Your task to perform on an android device: Clear the cart on ebay.com. Image 0: 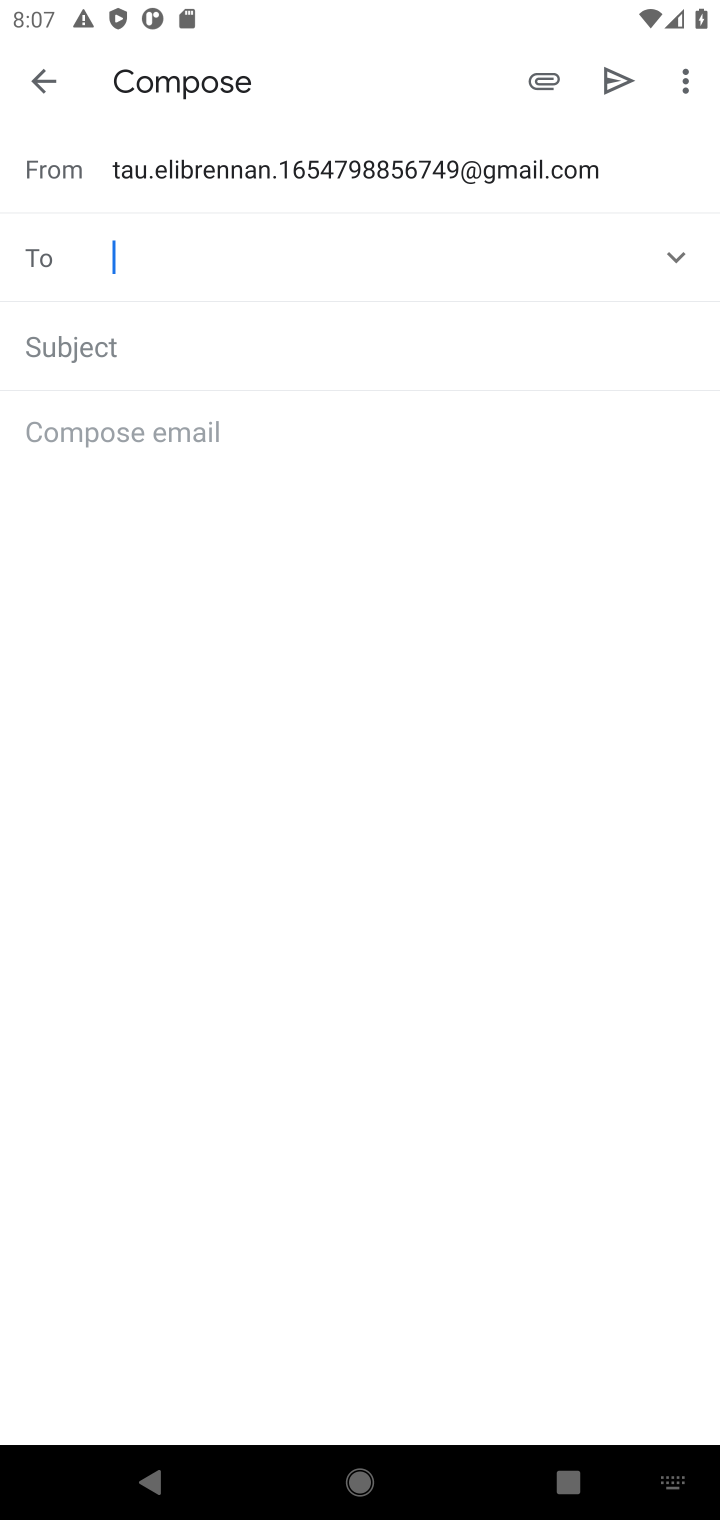
Step 0: press home button
Your task to perform on an android device: Clear the cart on ebay.com. Image 1: 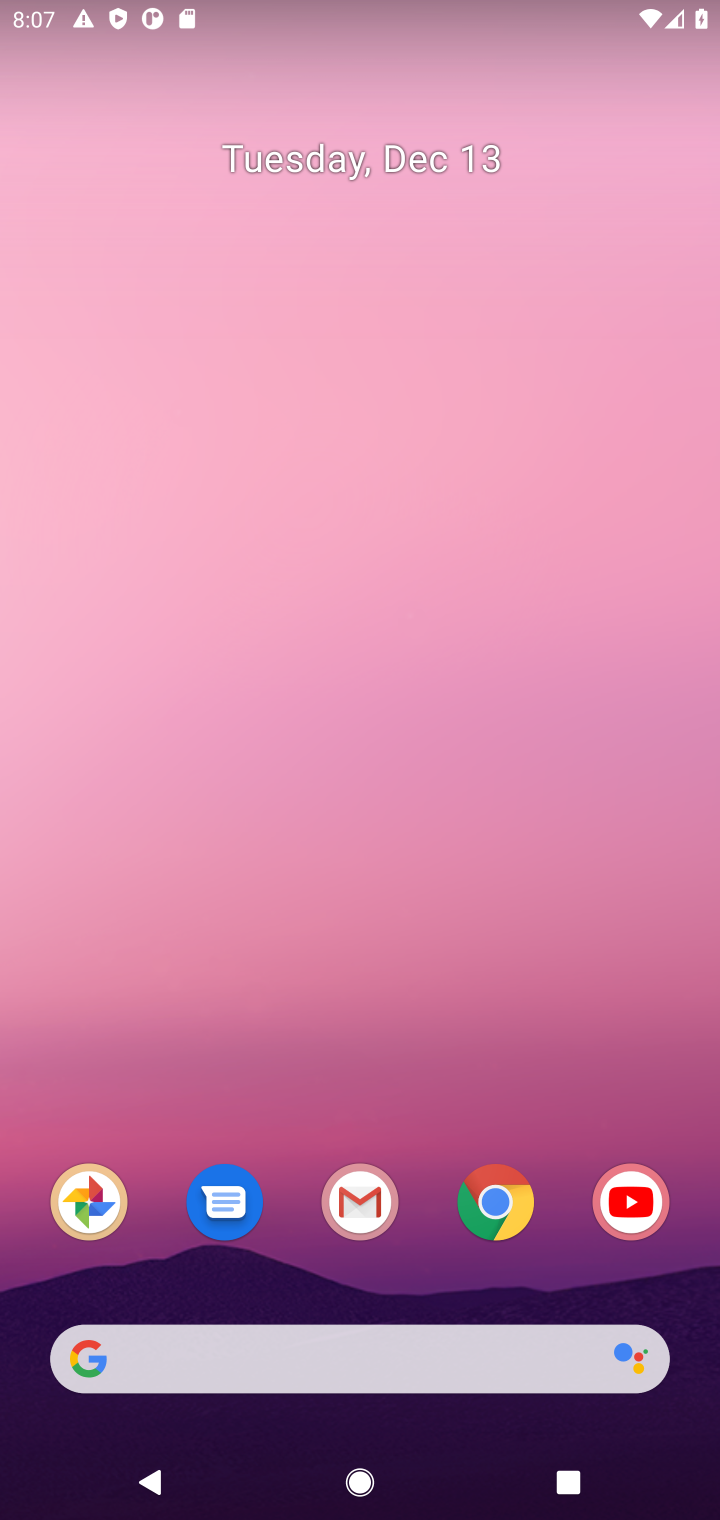
Step 1: click (483, 1219)
Your task to perform on an android device: Clear the cart on ebay.com. Image 2: 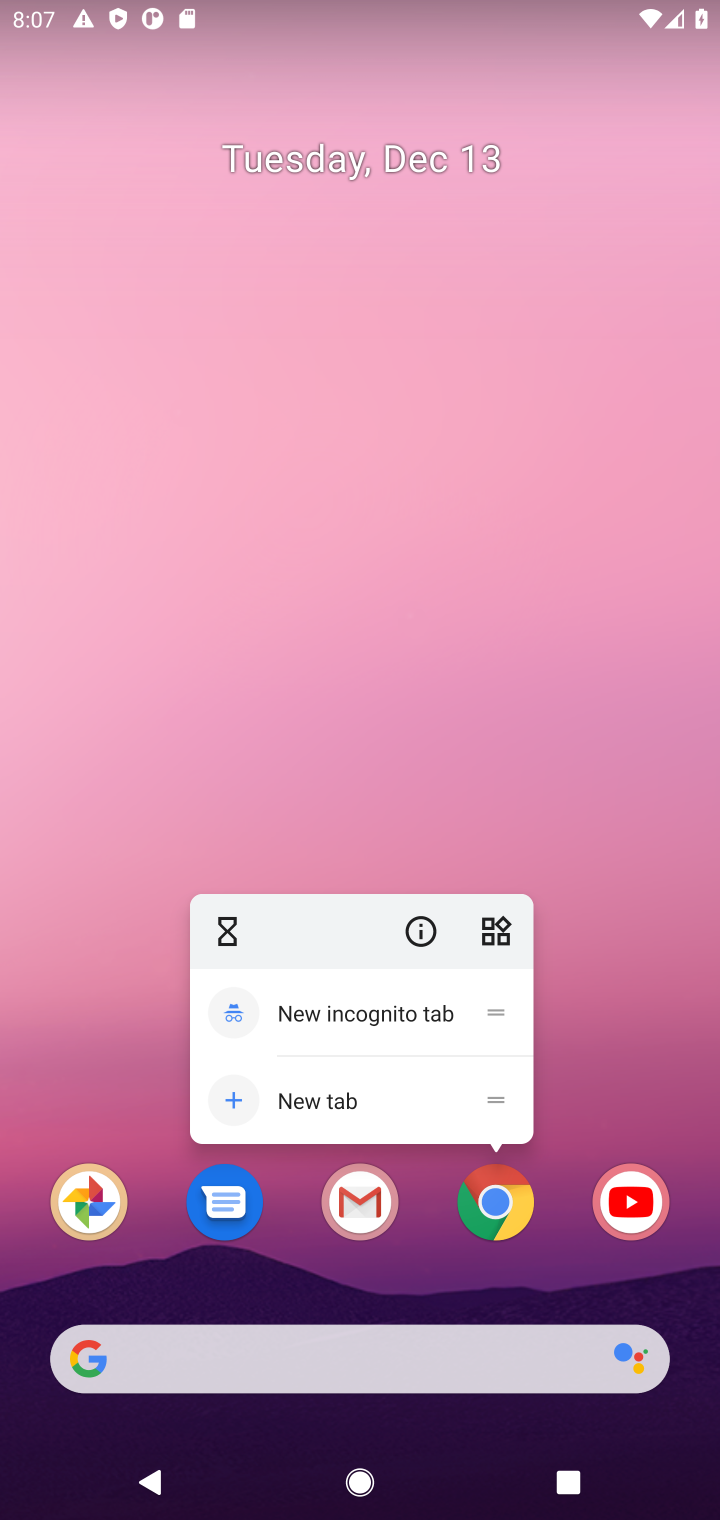
Step 2: click (489, 1219)
Your task to perform on an android device: Clear the cart on ebay.com. Image 3: 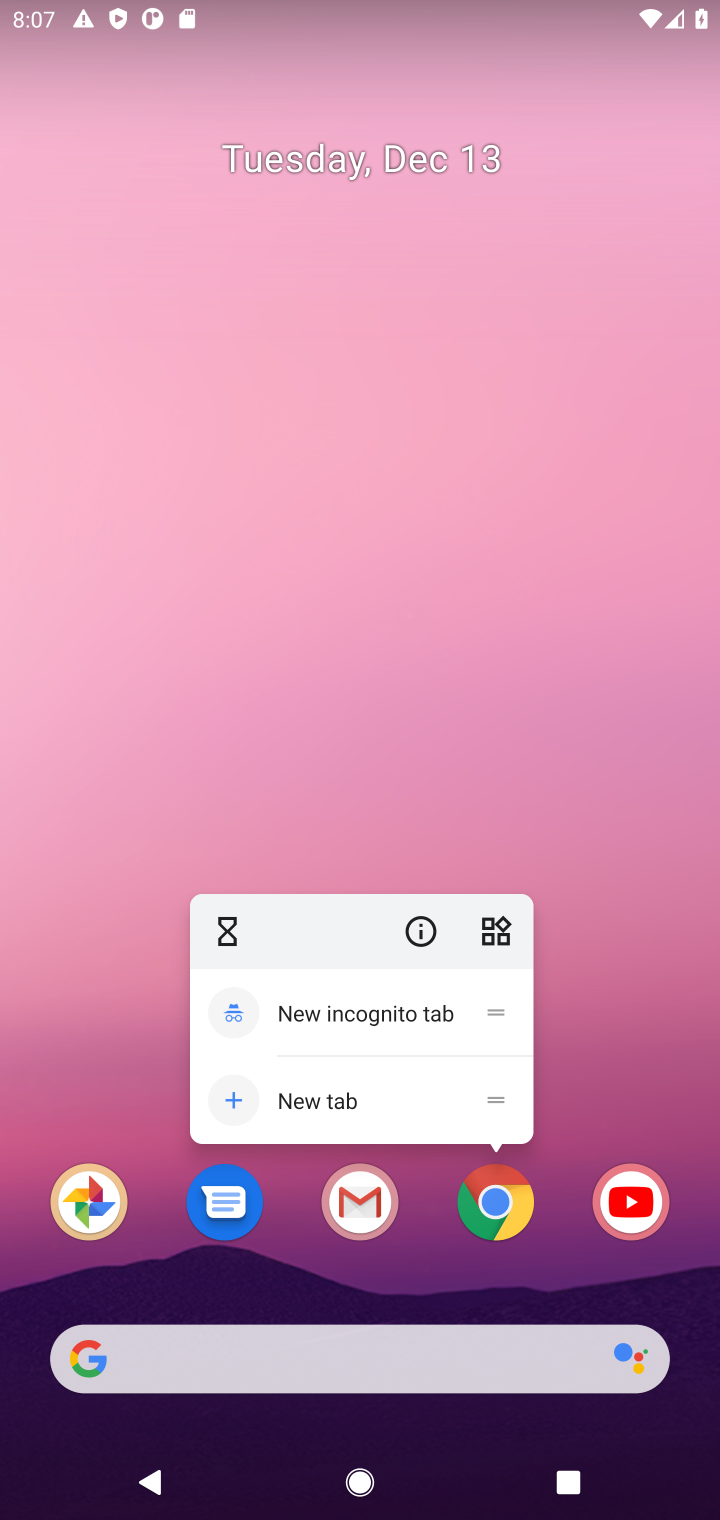
Step 3: click (521, 1211)
Your task to perform on an android device: Clear the cart on ebay.com. Image 4: 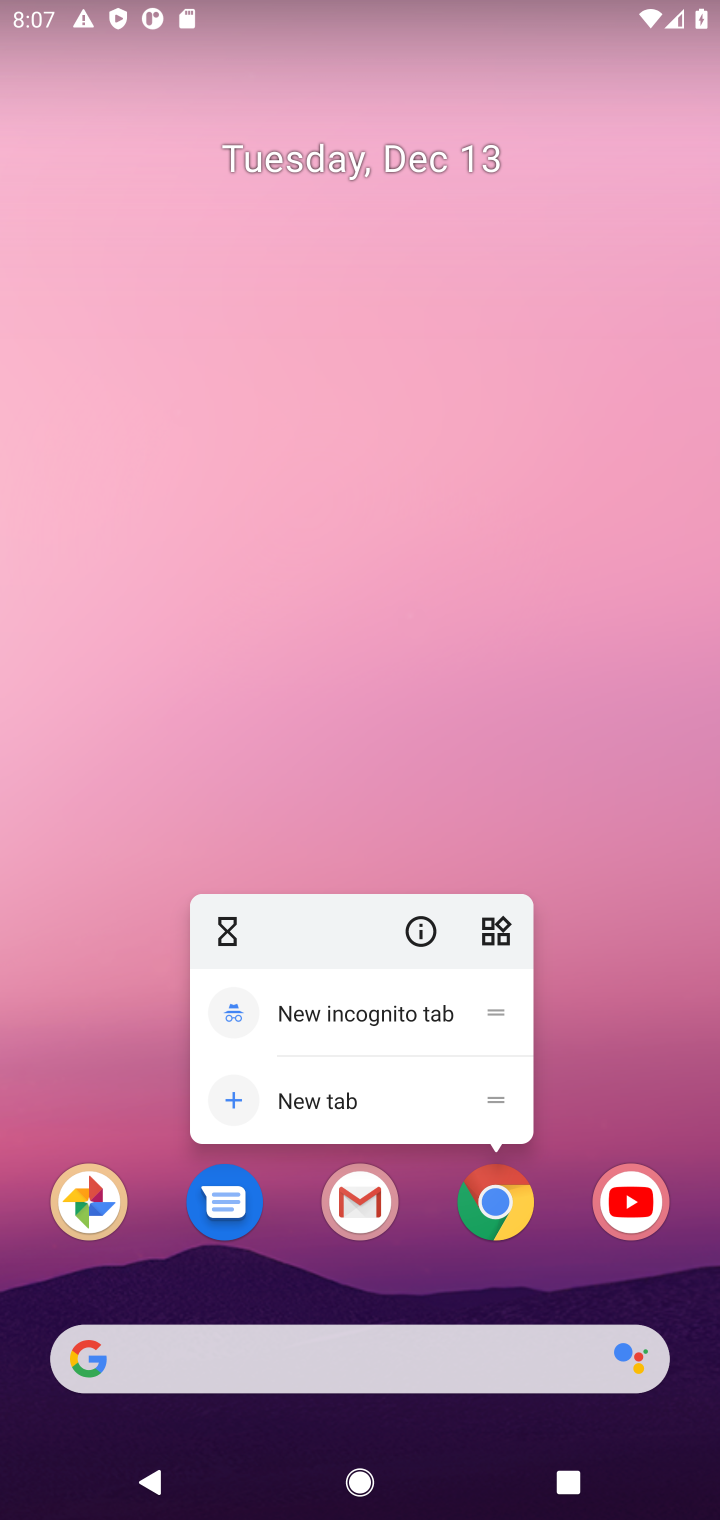
Step 4: click (521, 1211)
Your task to perform on an android device: Clear the cart on ebay.com. Image 5: 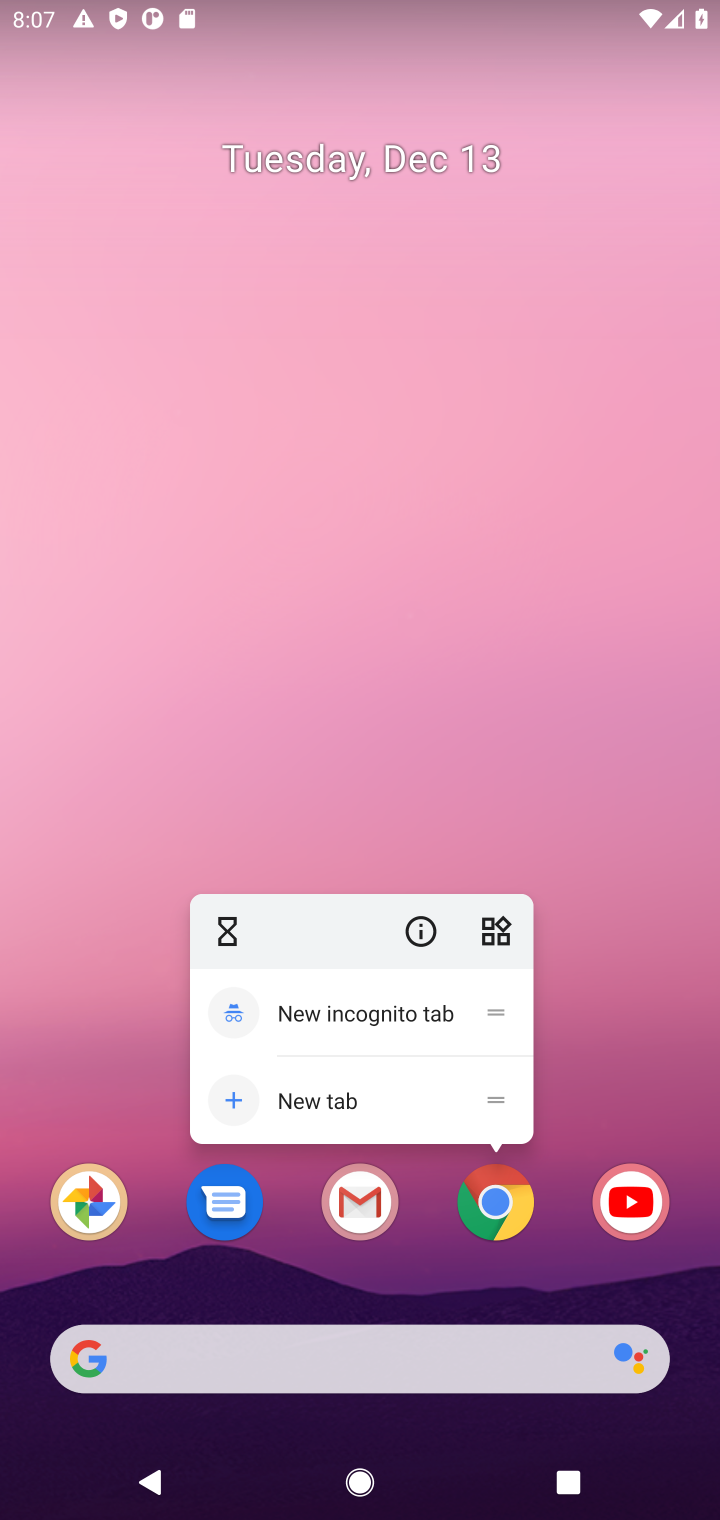
Step 5: click (521, 1211)
Your task to perform on an android device: Clear the cart on ebay.com. Image 6: 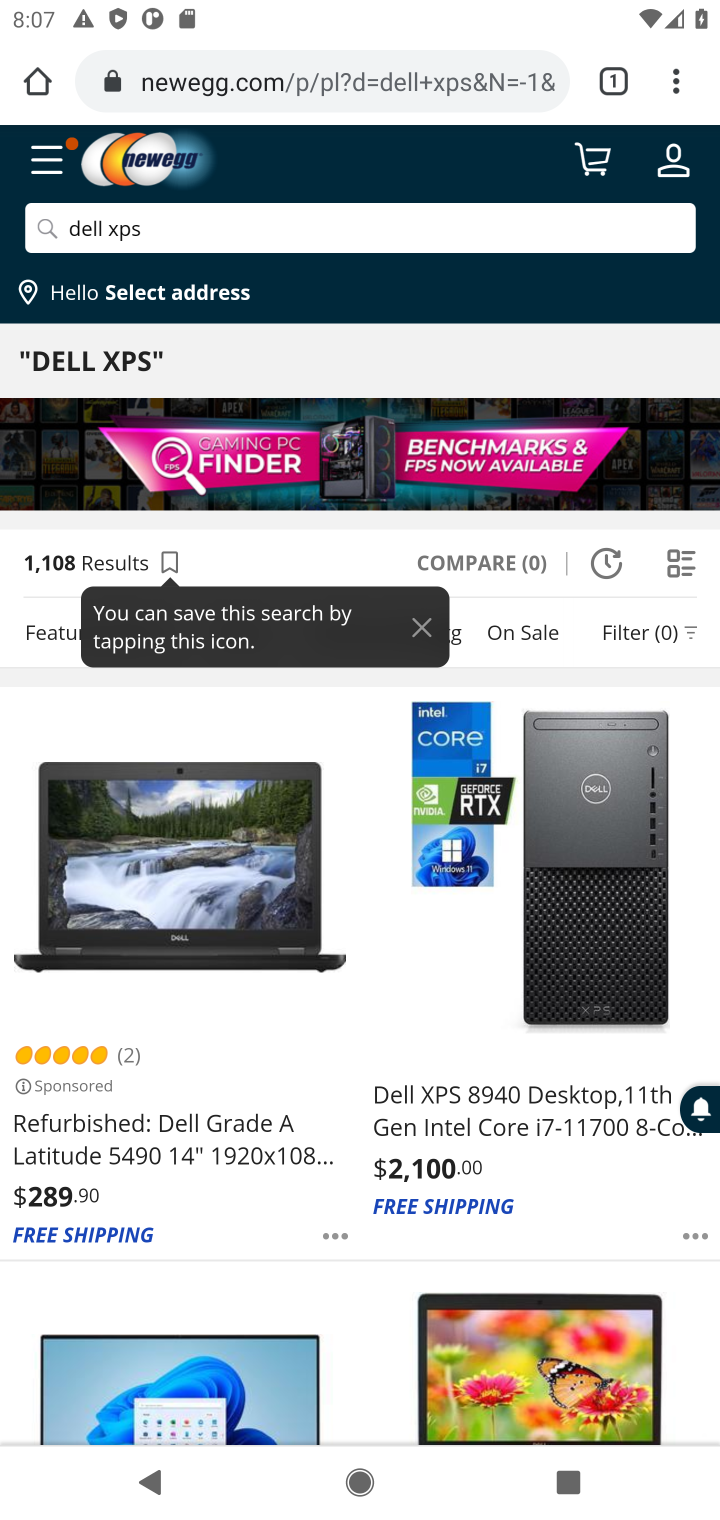
Step 6: click (387, 97)
Your task to perform on an android device: Clear the cart on ebay.com. Image 7: 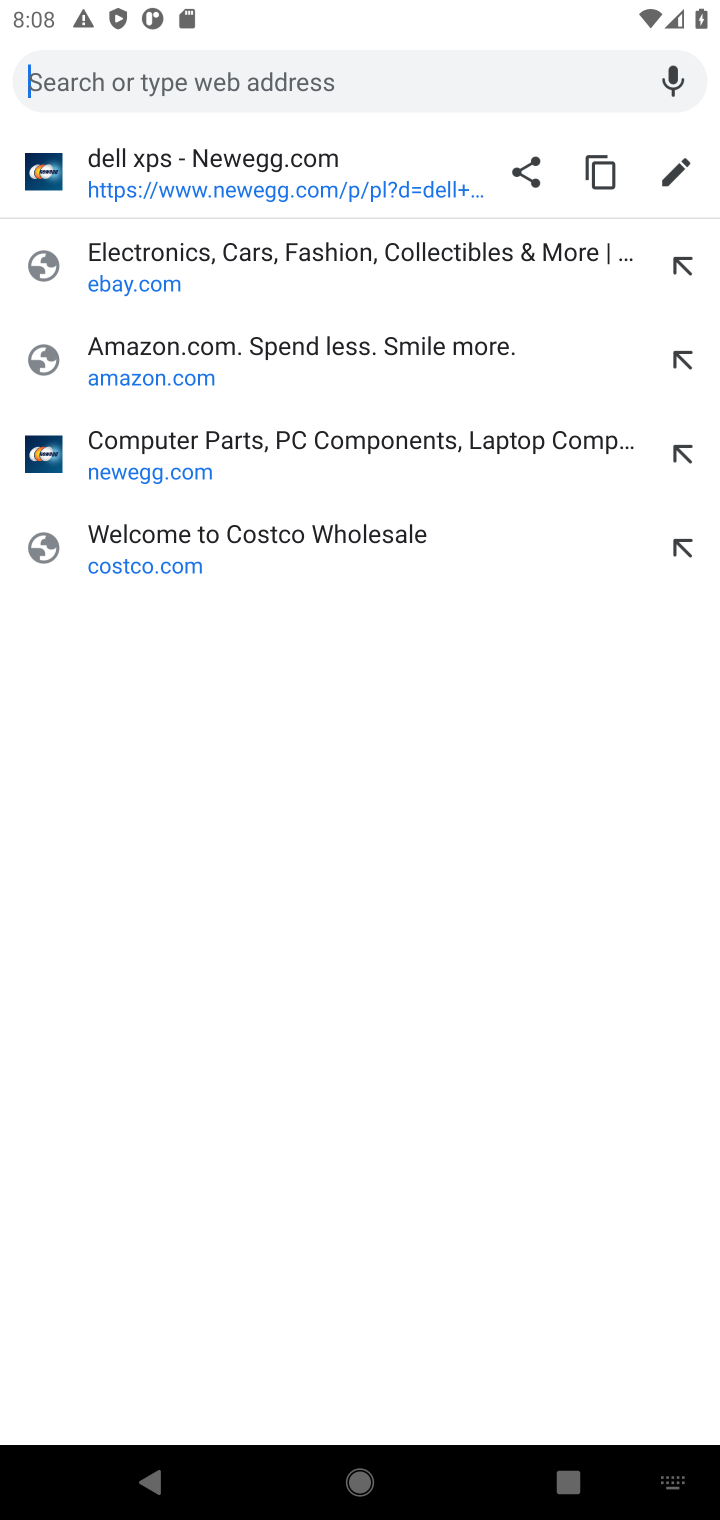
Step 7: click (141, 287)
Your task to perform on an android device: Clear the cart on ebay.com. Image 8: 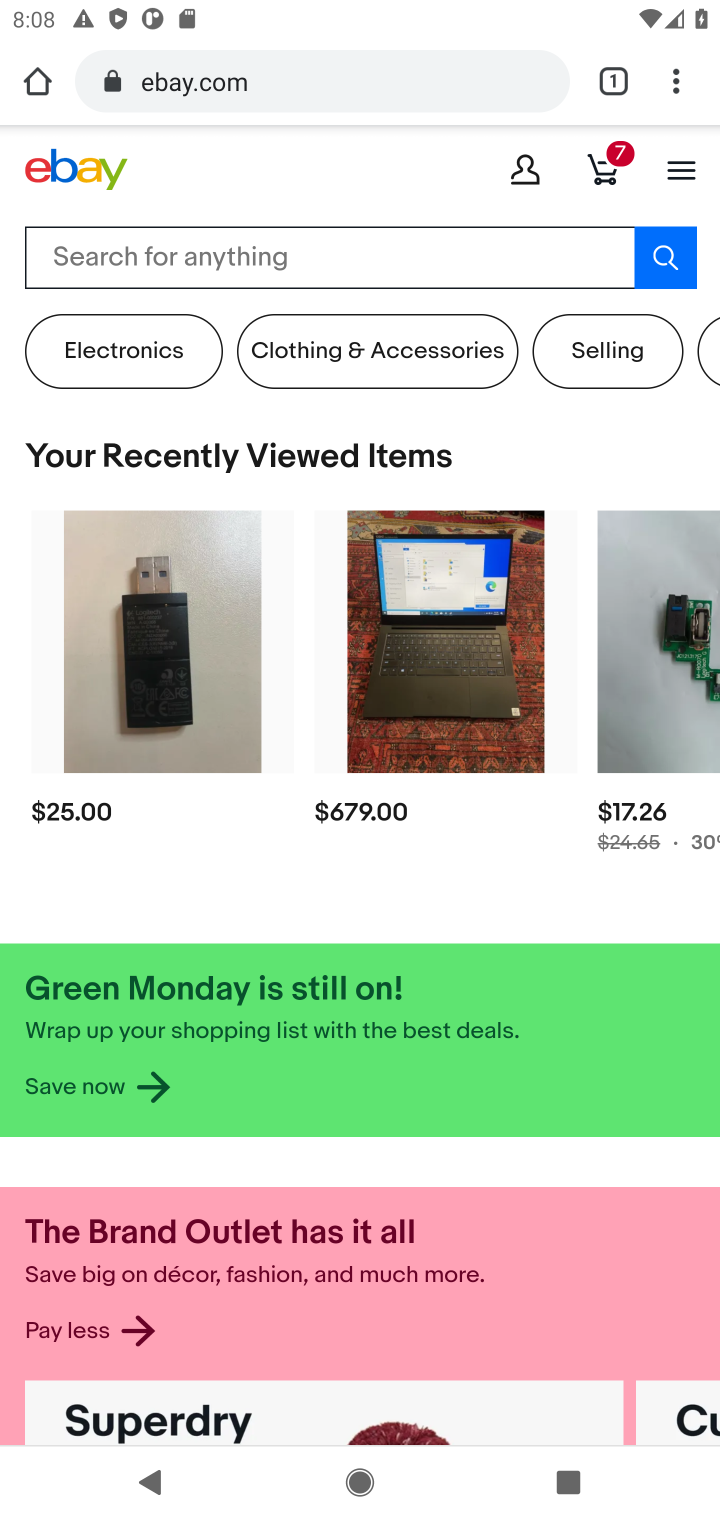
Step 8: click (606, 172)
Your task to perform on an android device: Clear the cart on ebay.com. Image 9: 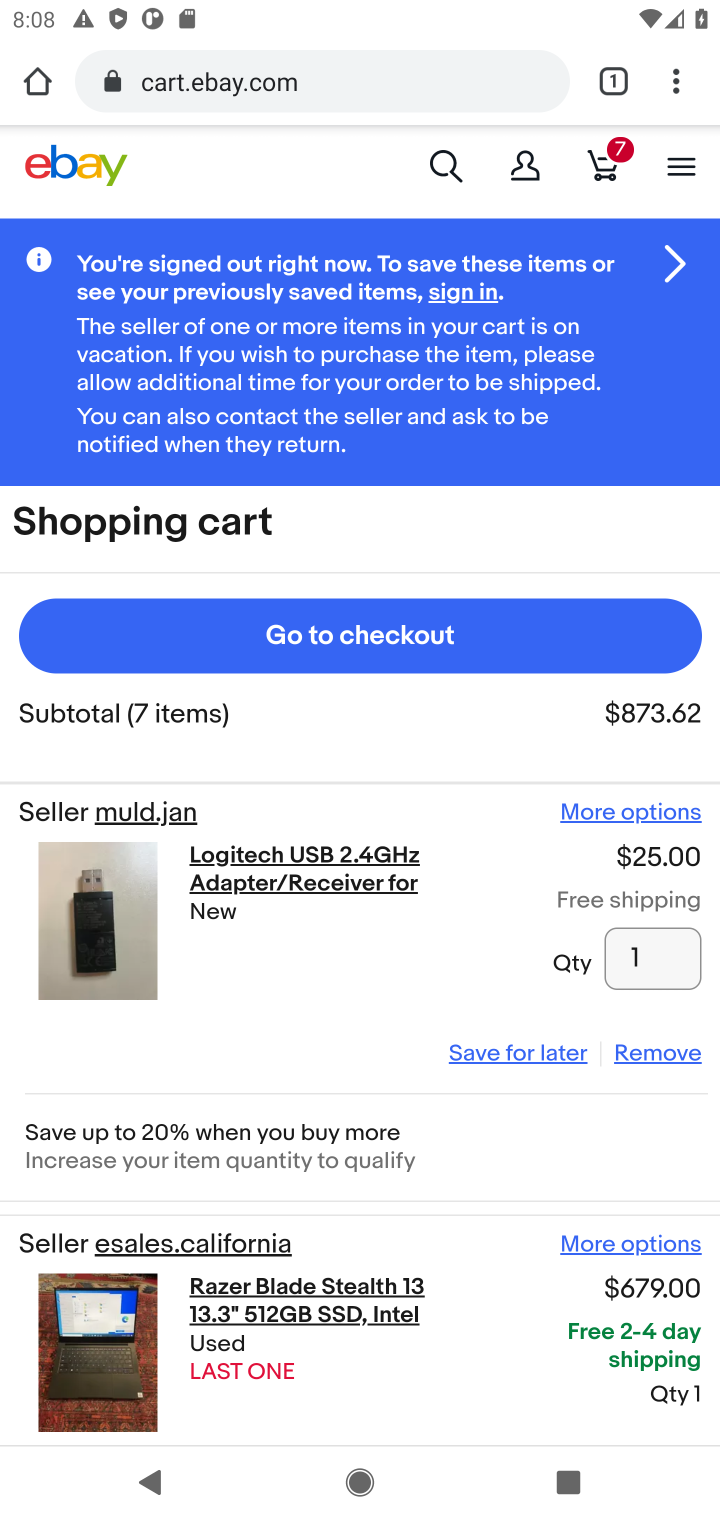
Step 9: click (668, 1061)
Your task to perform on an android device: Clear the cart on ebay.com. Image 10: 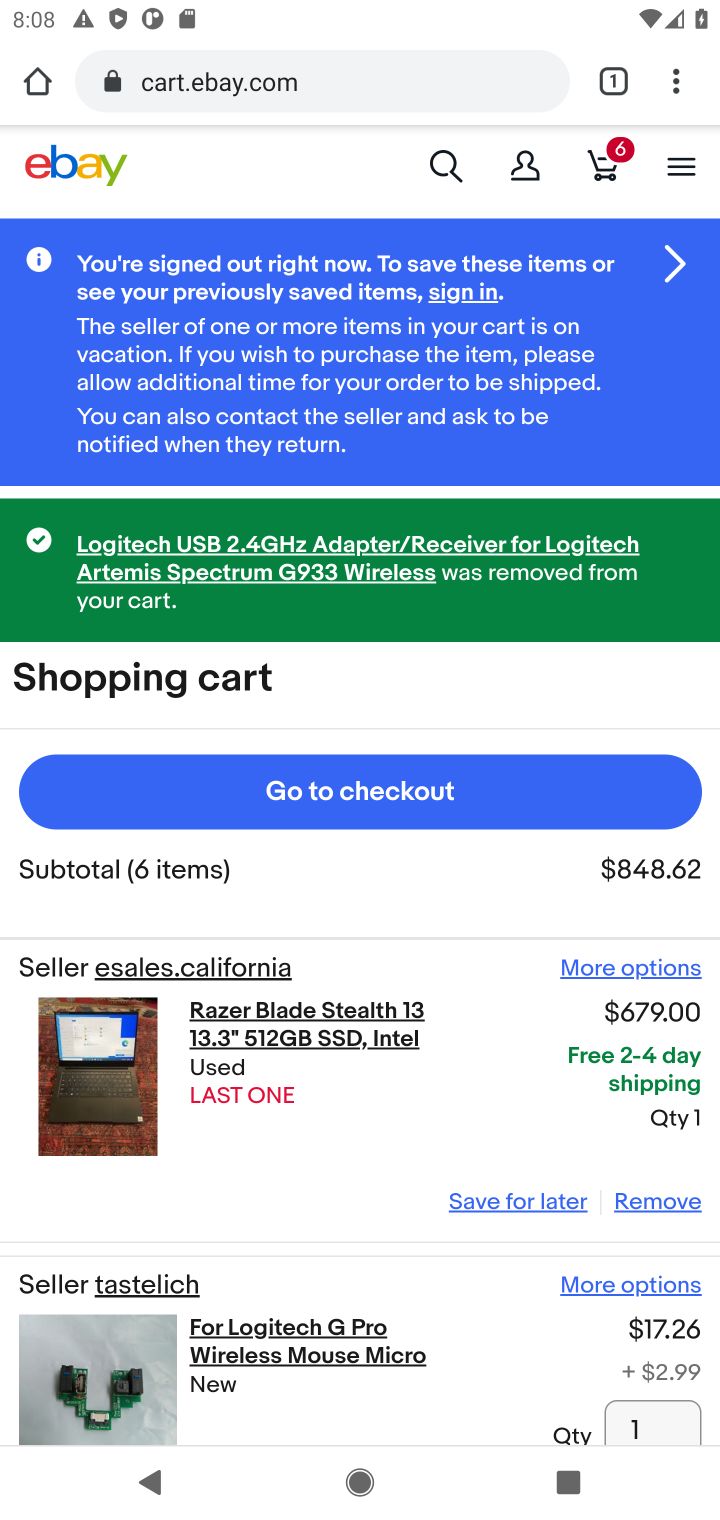
Step 10: click (666, 1199)
Your task to perform on an android device: Clear the cart on ebay.com. Image 11: 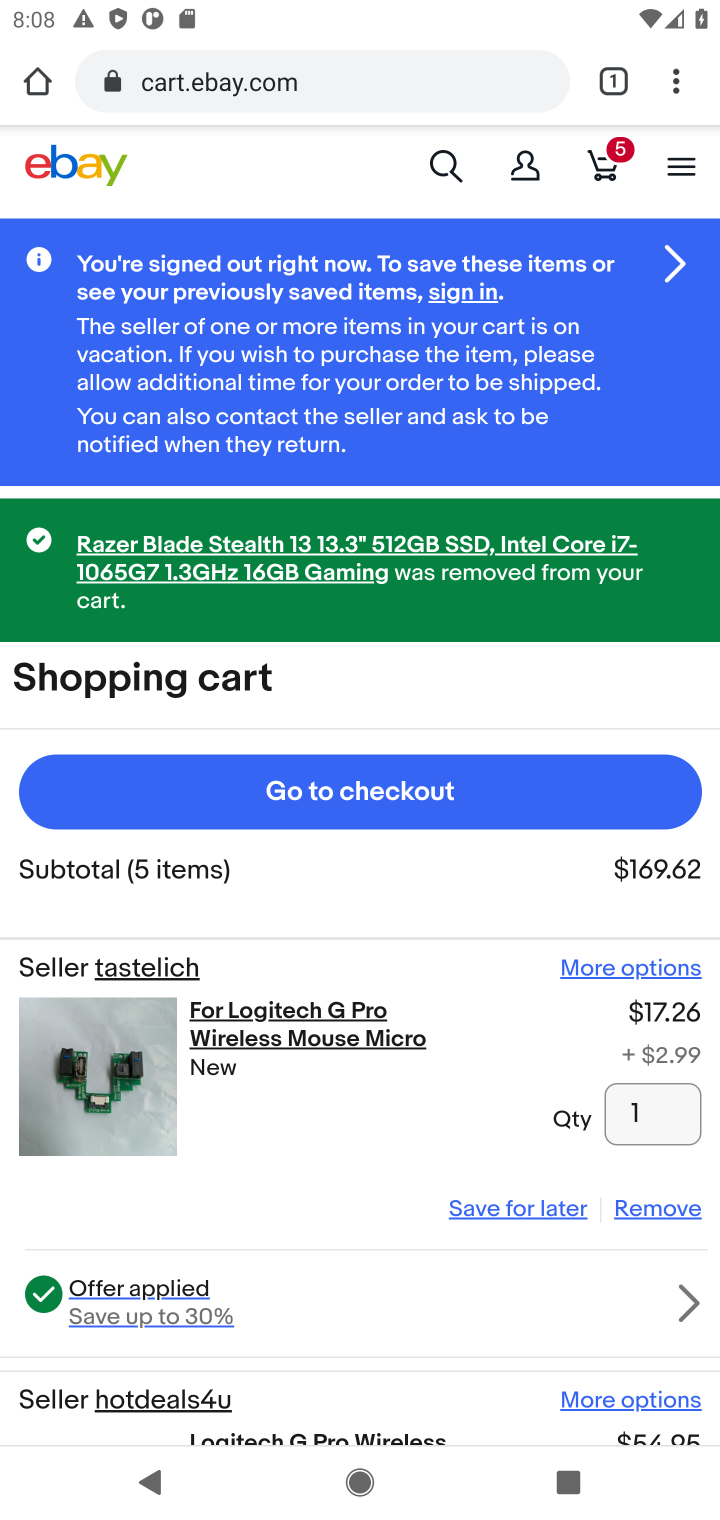
Step 11: click (666, 1199)
Your task to perform on an android device: Clear the cart on ebay.com. Image 12: 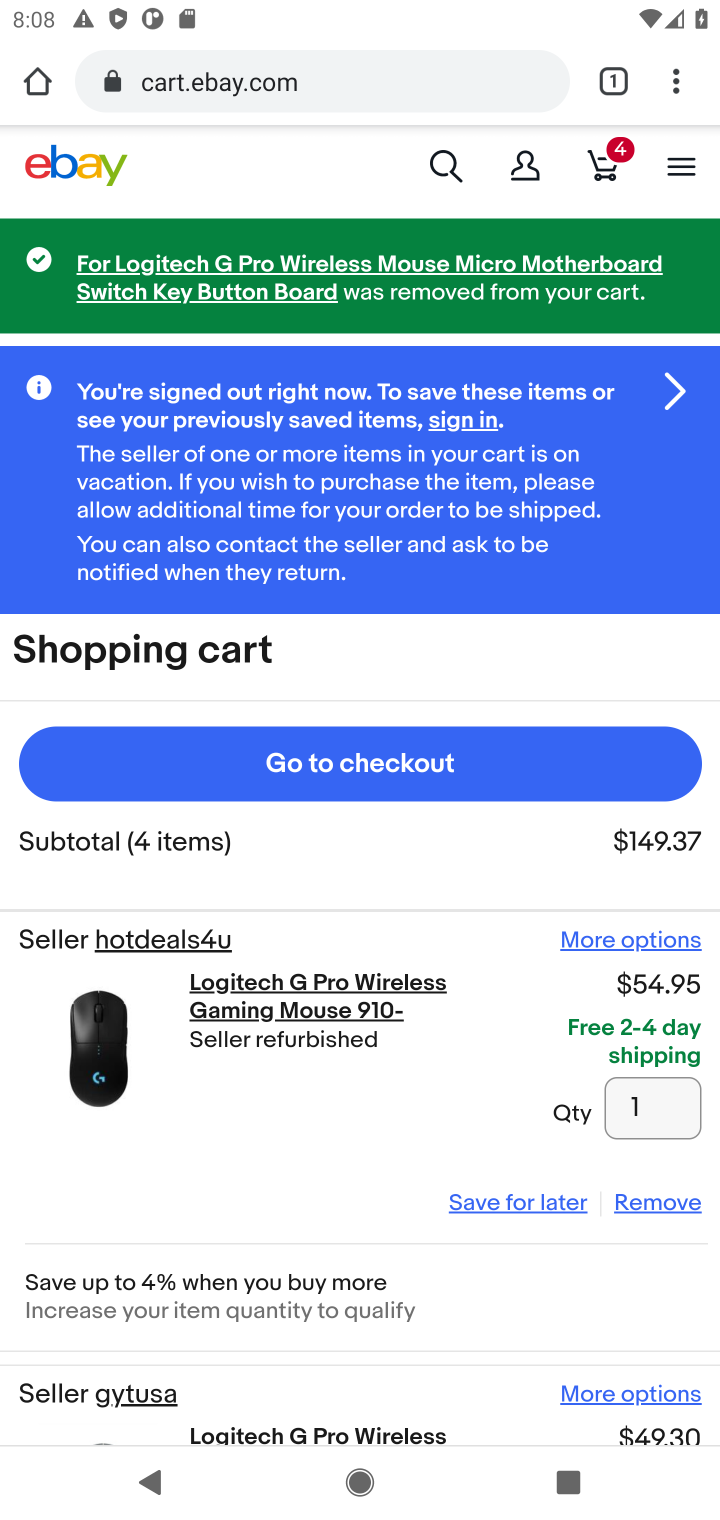
Step 12: click (666, 1199)
Your task to perform on an android device: Clear the cart on ebay.com. Image 13: 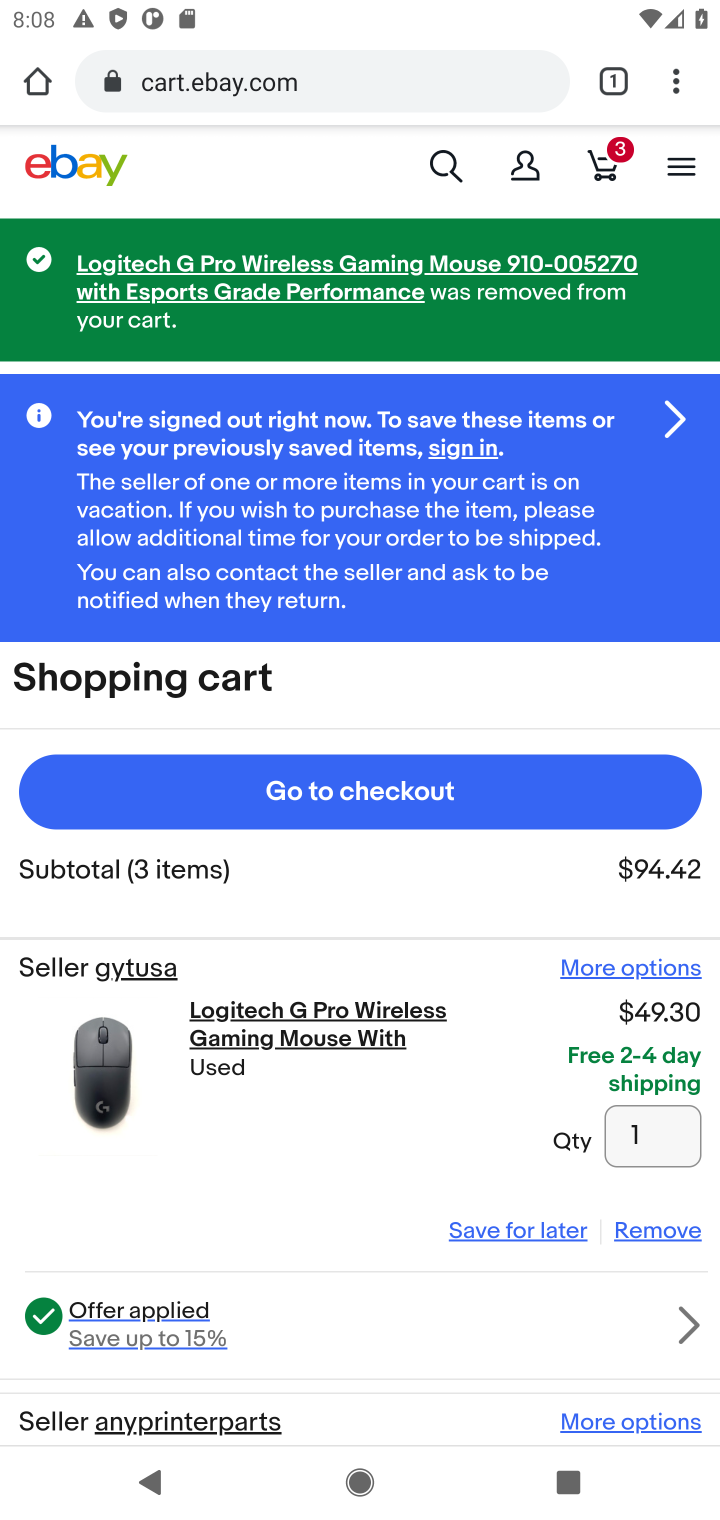
Step 13: click (673, 1235)
Your task to perform on an android device: Clear the cart on ebay.com. Image 14: 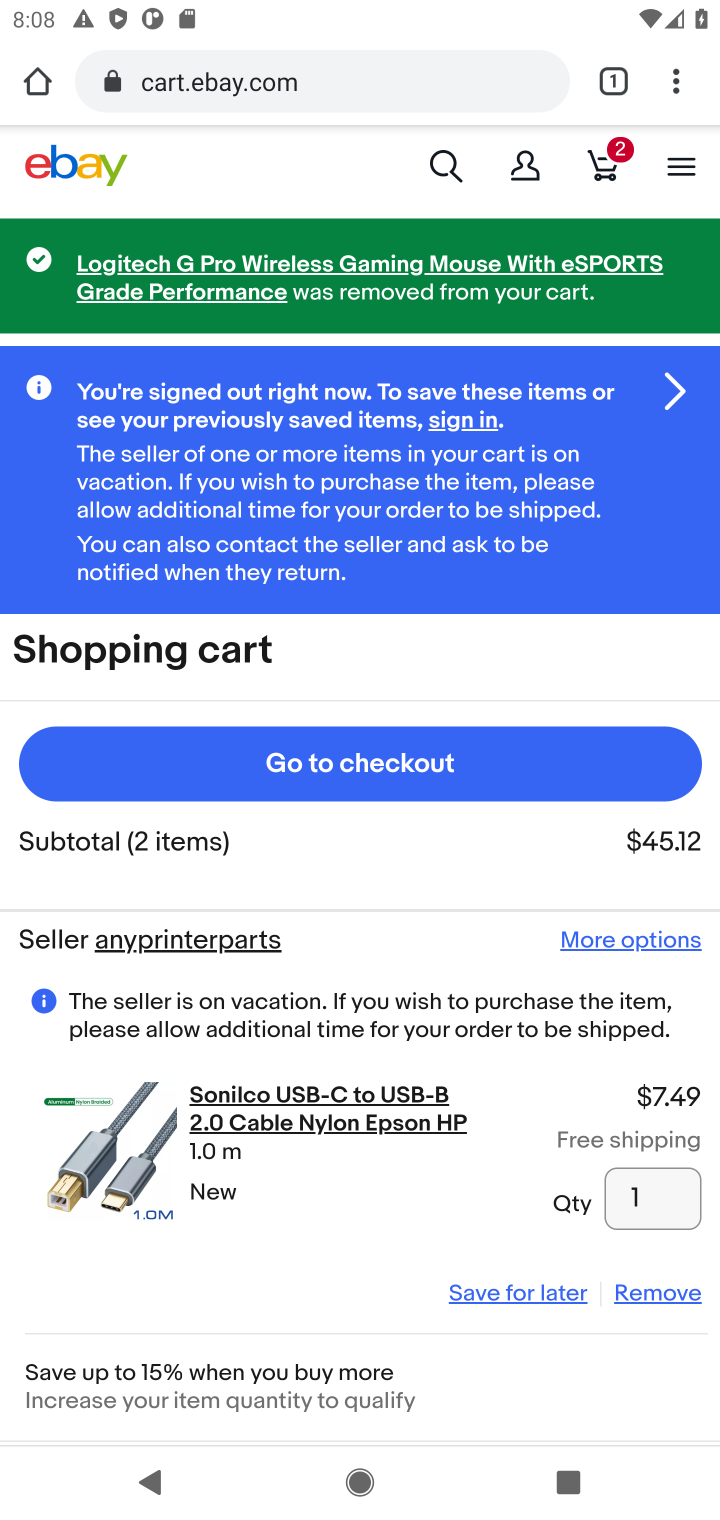
Step 14: click (677, 1286)
Your task to perform on an android device: Clear the cart on ebay.com. Image 15: 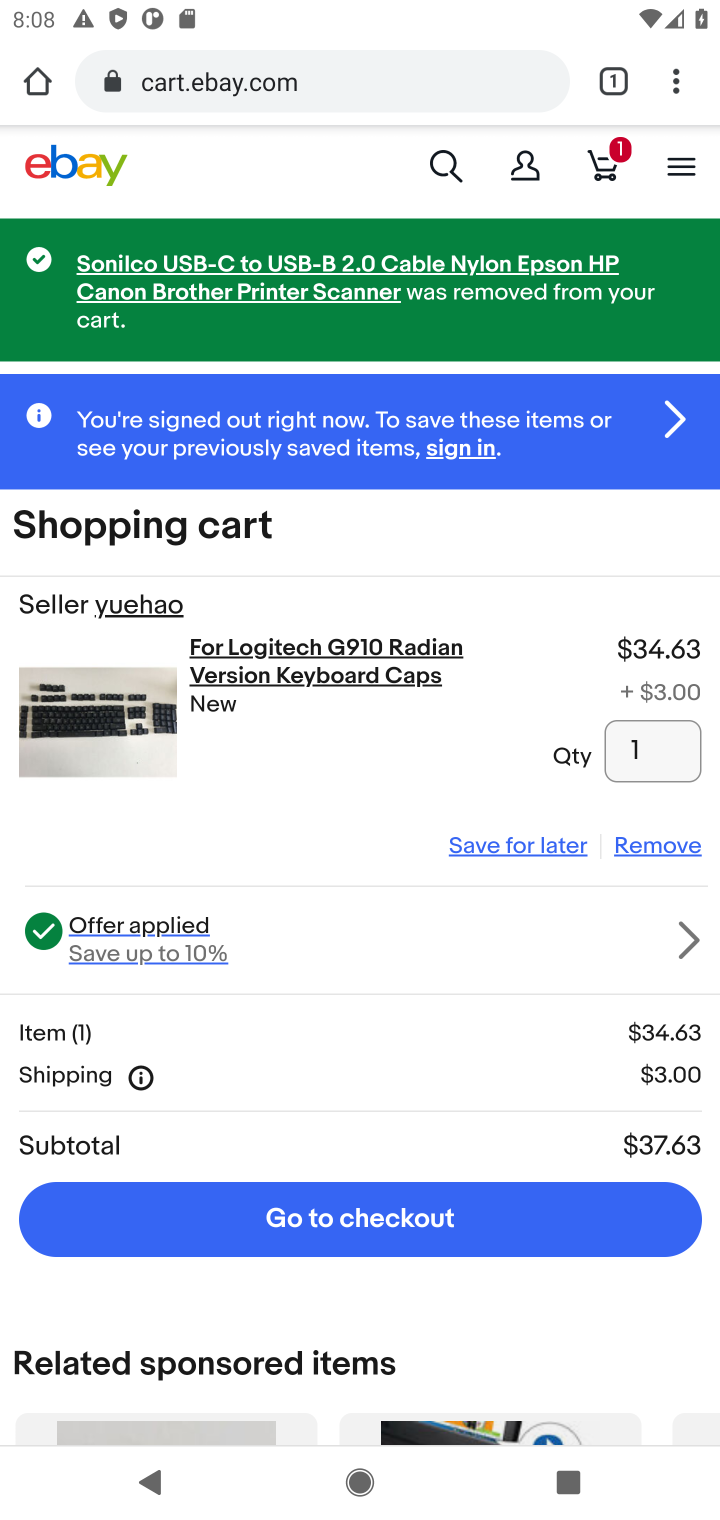
Step 15: click (672, 855)
Your task to perform on an android device: Clear the cart on ebay.com. Image 16: 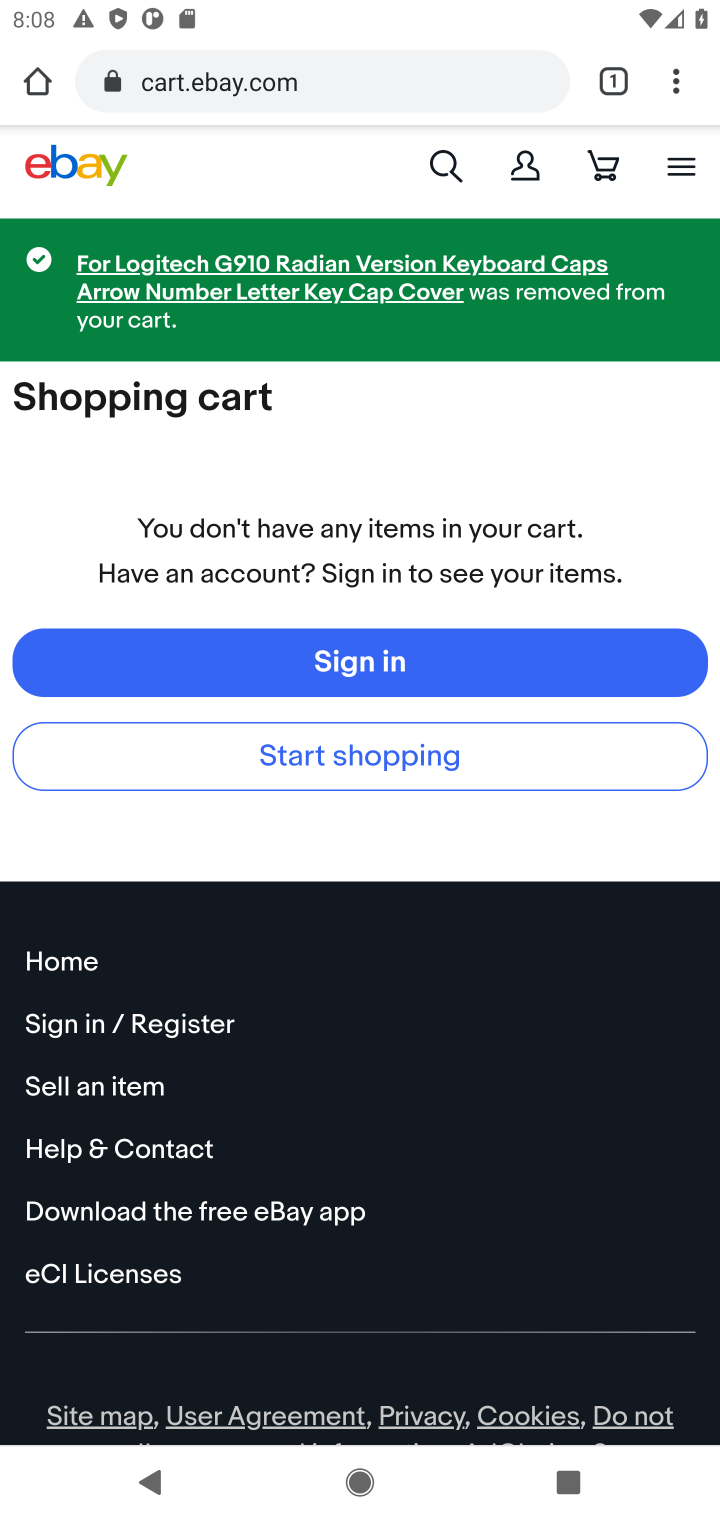
Step 16: task complete